Your task to perform on an android device: turn on priority inbox in the gmail app Image 0: 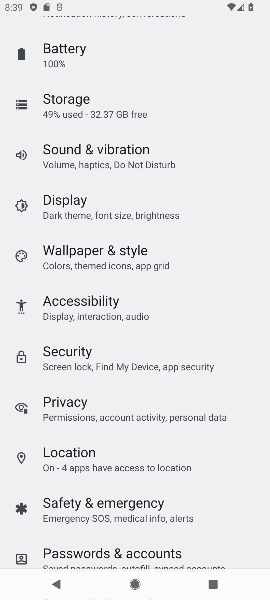
Step 0: press home button
Your task to perform on an android device: turn on priority inbox in the gmail app Image 1: 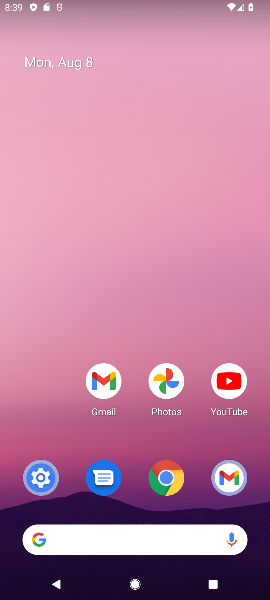
Step 1: click (108, 389)
Your task to perform on an android device: turn on priority inbox in the gmail app Image 2: 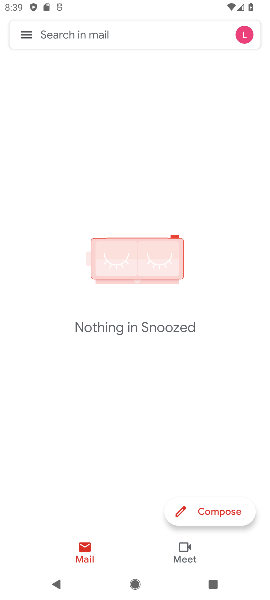
Step 2: click (26, 36)
Your task to perform on an android device: turn on priority inbox in the gmail app Image 3: 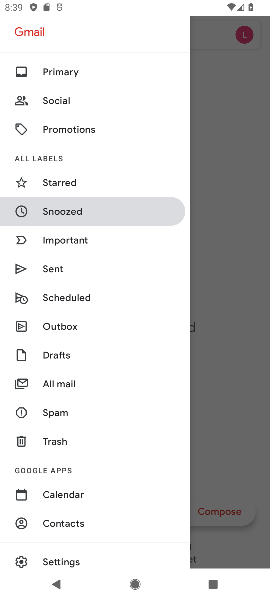
Step 3: click (62, 558)
Your task to perform on an android device: turn on priority inbox in the gmail app Image 4: 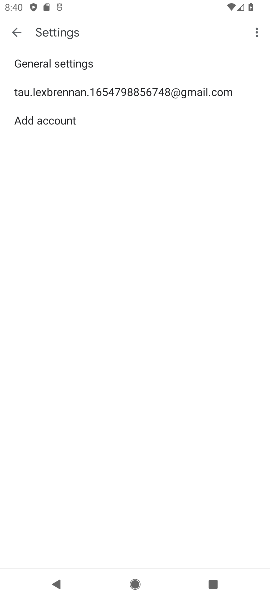
Step 4: click (203, 86)
Your task to perform on an android device: turn on priority inbox in the gmail app Image 5: 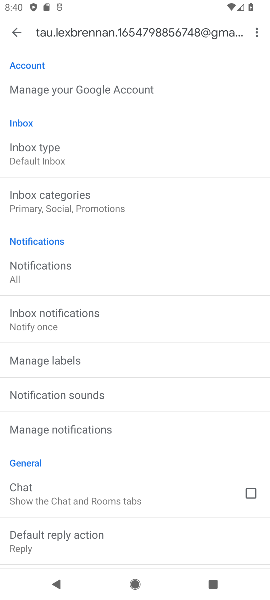
Step 5: click (60, 159)
Your task to perform on an android device: turn on priority inbox in the gmail app Image 6: 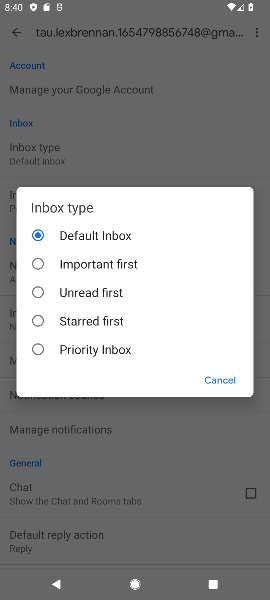
Step 6: click (39, 349)
Your task to perform on an android device: turn on priority inbox in the gmail app Image 7: 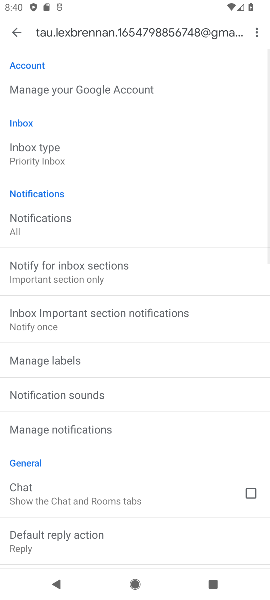
Step 7: task complete